Your task to perform on an android device: change alarm snooze length Image 0: 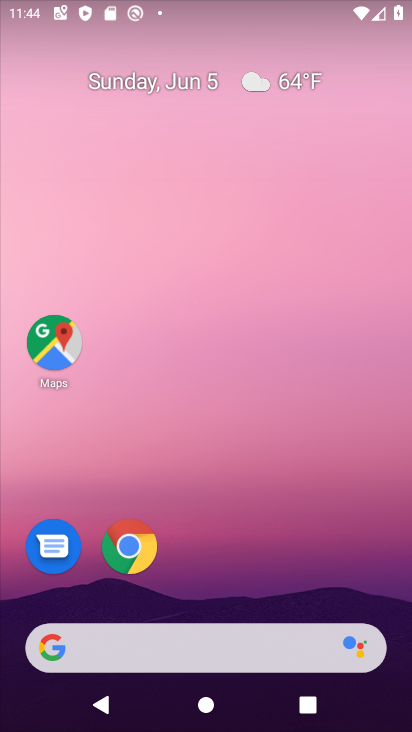
Step 0: drag from (265, 600) to (265, 297)
Your task to perform on an android device: change alarm snooze length Image 1: 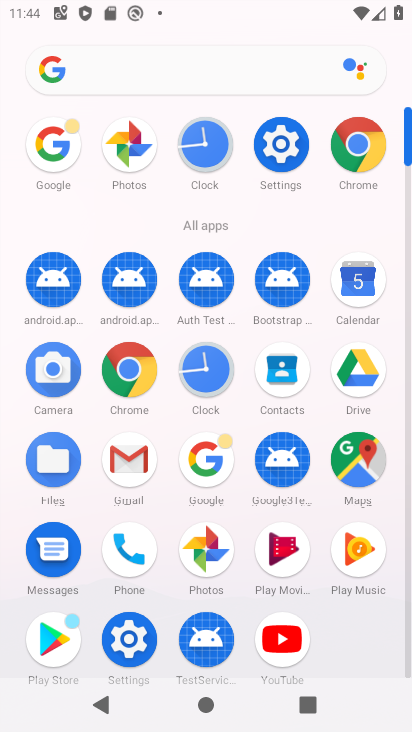
Step 1: click (200, 134)
Your task to perform on an android device: change alarm snooze length Image 2: 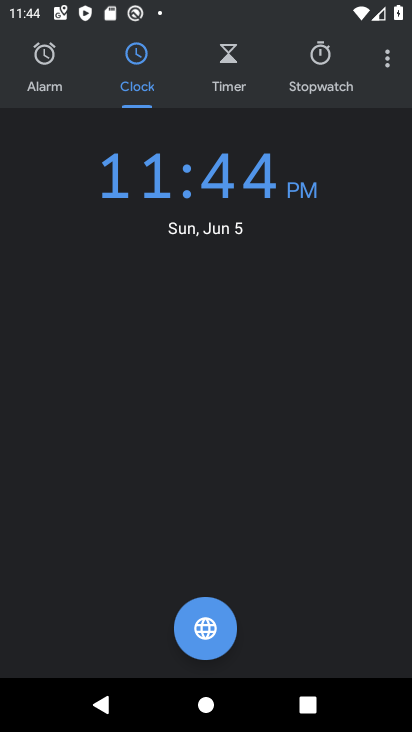
Step 2: click (380, 56)
Your task to perform on an android device: change alarm snooze length Image 3: 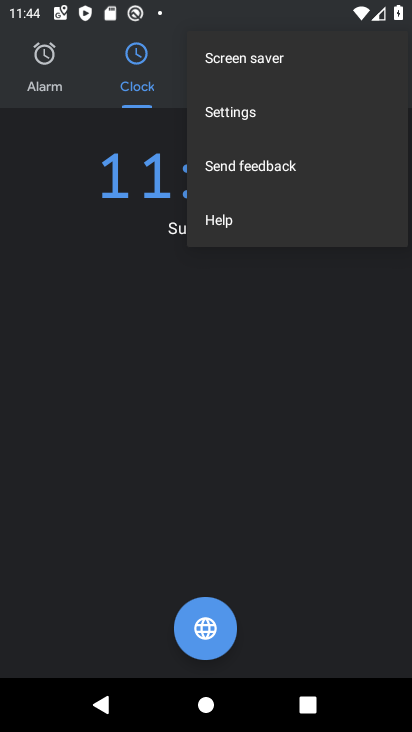
Step 3: click (261, 108)
Your task to perform on an android device: change alarm snooze length Image 4: 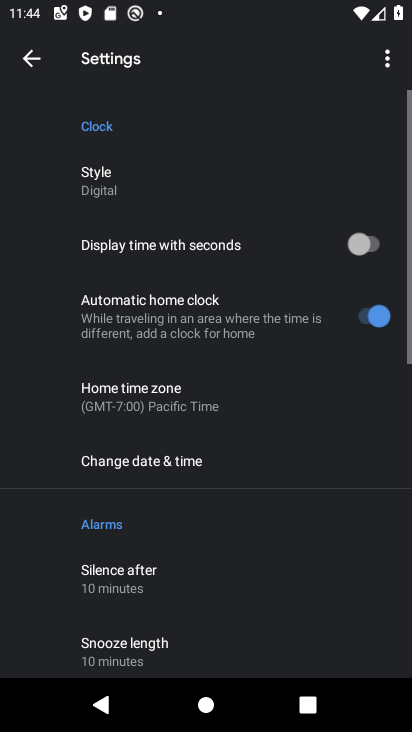
Step 4: drag from (193, 532) to (246, 201)
Your task to perform on an android device: change alarm snooze length Image 5: 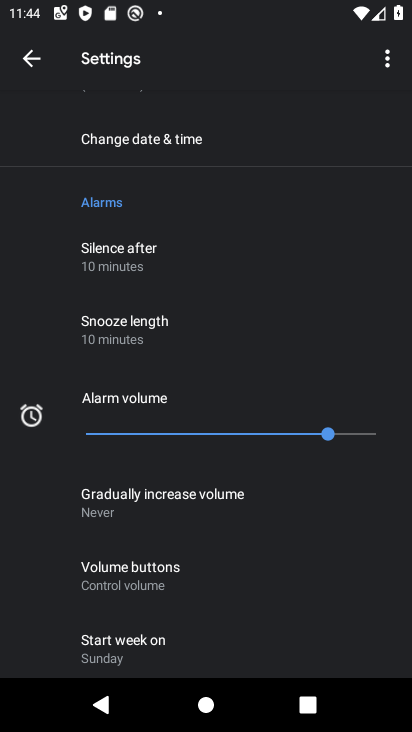
Step 5: click (153, 337)
Your task to perform on an android device: change alarm snooze length Image 6: 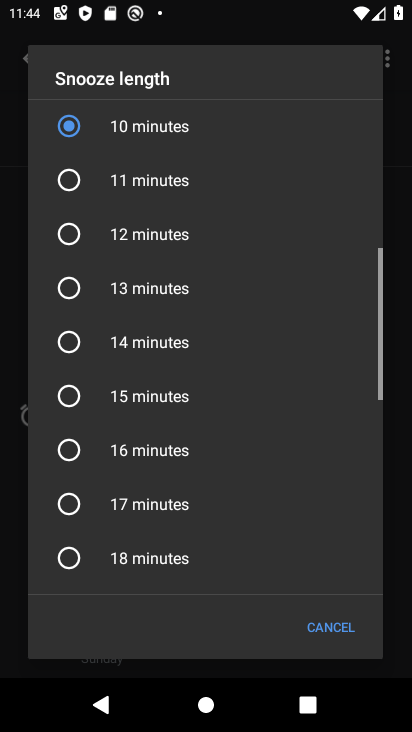
Step 6: drag from (185, 451) to (213, 164)
Your task to perform on an android device: change alarm snooze length Image 7: 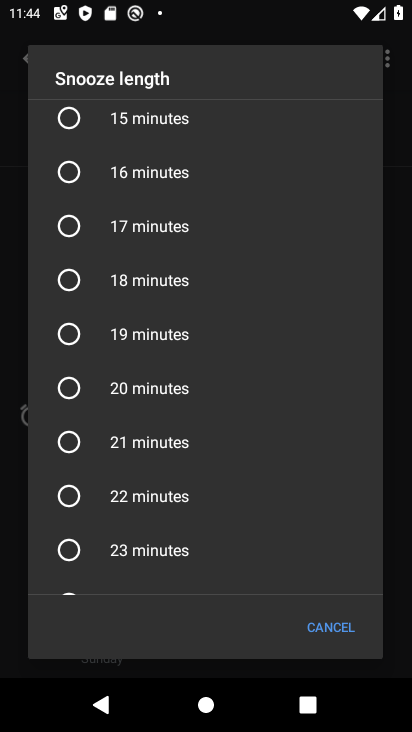
Step 7: drag from (177, 403) to (155, 267)
Your task to perform on an android device: change alarm snooze length Image 8: 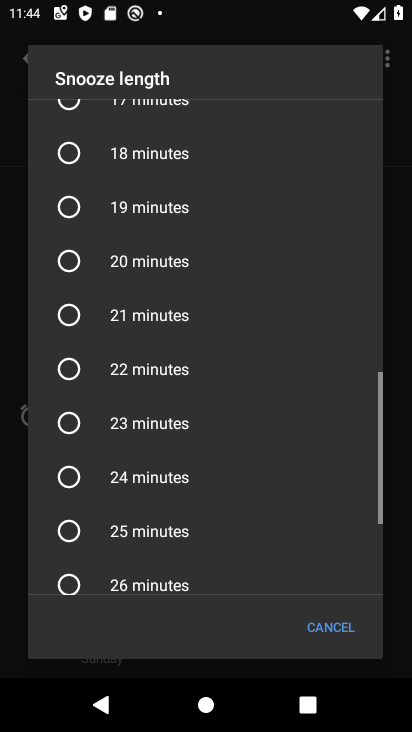
Step 8: click (118, 475)
Your task to perform on an android device: change alarm snooze length Image 9: 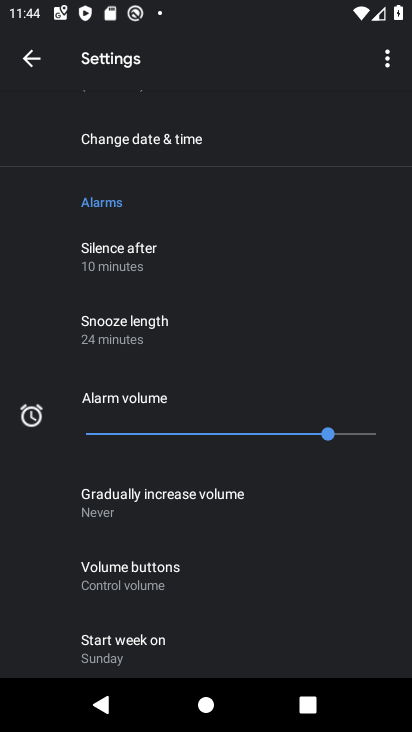
Step 9: task complete